Your task to perform on an android device: Clear the cart on walmart.com. Add "razer naga" to the cart on walmart.com, then select checkout. Image 0: 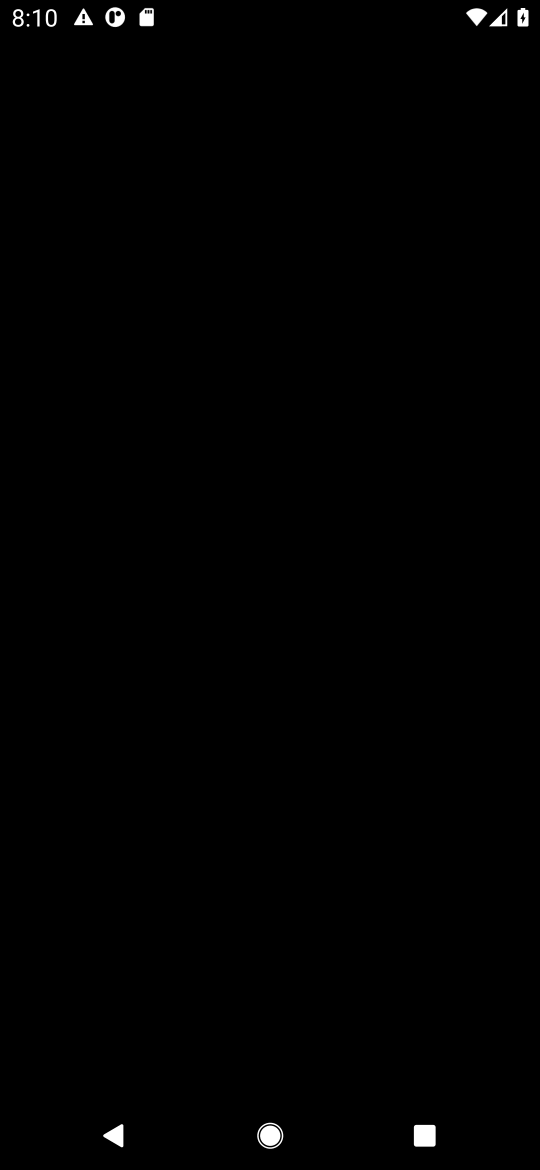
Step 0: press home button
Your task to perform on an android device: Clear the cart on walmart.com. Add "razer naga" to the cart on walmart.com, then select checkout. Image 1: 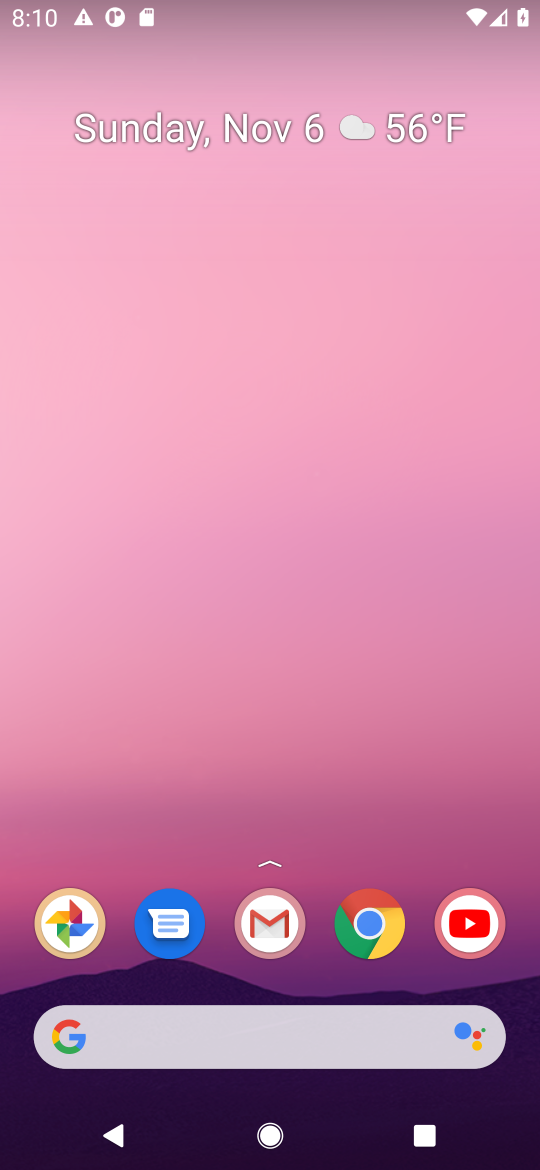
Step 1: click (375, 930)
Your task to perform on an android device: Clear the cart on walmart.com. Add "razer naga" to the cart on walmart.com, then select checkout. Image 2: 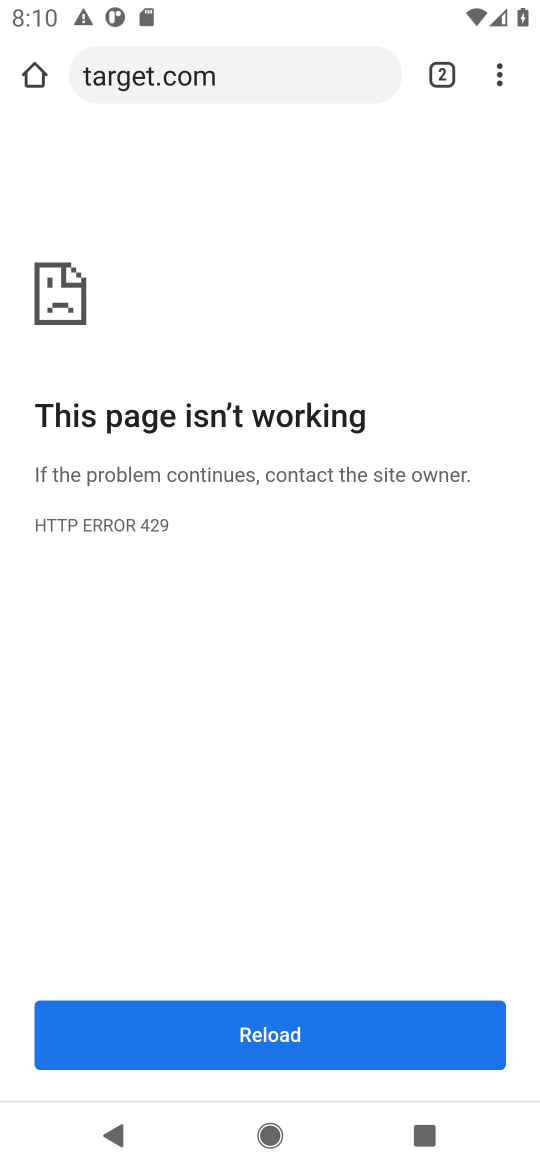
Step 2: click (219, 81)
Your task to perform on an android device: Clear the cart on walmart.com. Add "razer naga" to the cart on walmart.com, then select checkout. Image 3: 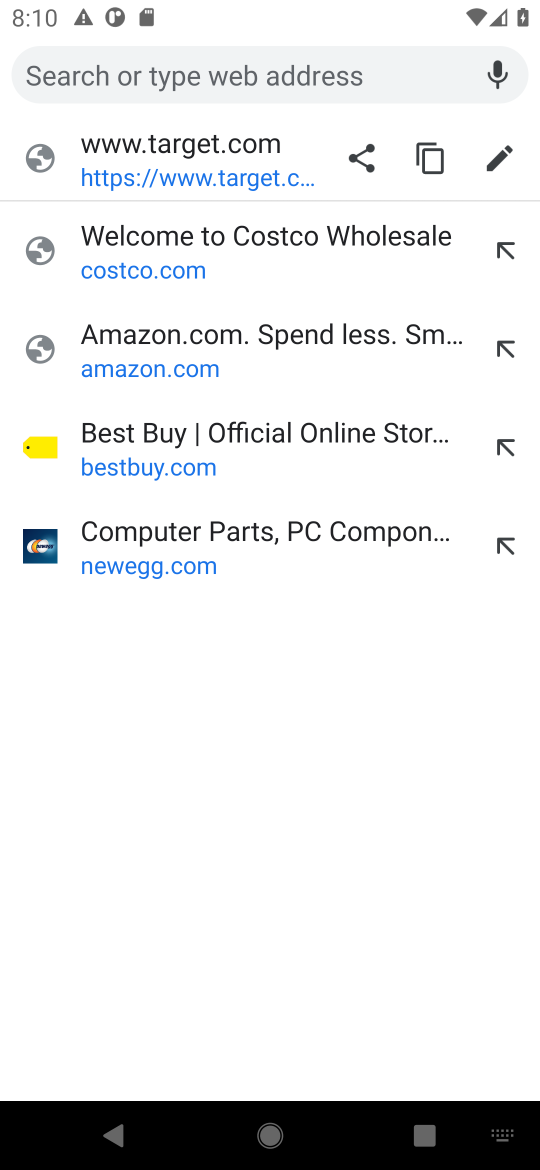
Step 3: type "walmart.com"
Your task to perform on an android device: Clear the cart on walmart.com. Add "razer naga" to the cart on walmart.com, then select checkout. Image 4: 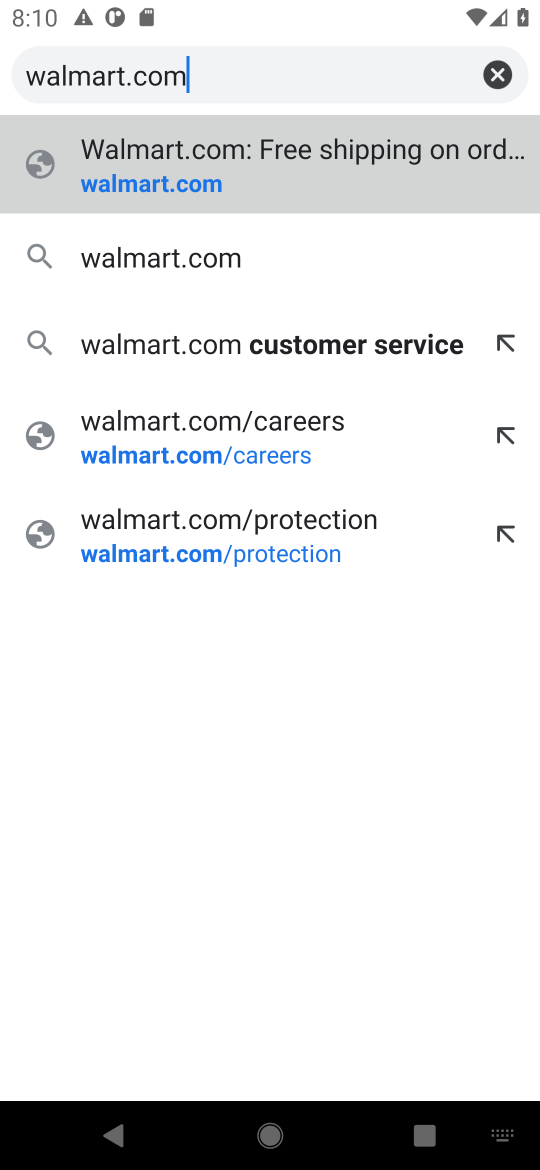
Step 4: click (126, 192)
Your task to perform on an android device: Clear the cart on walmart.com. Add "razer naga" to the cart on walmart.com, then select checkout. Image 5: 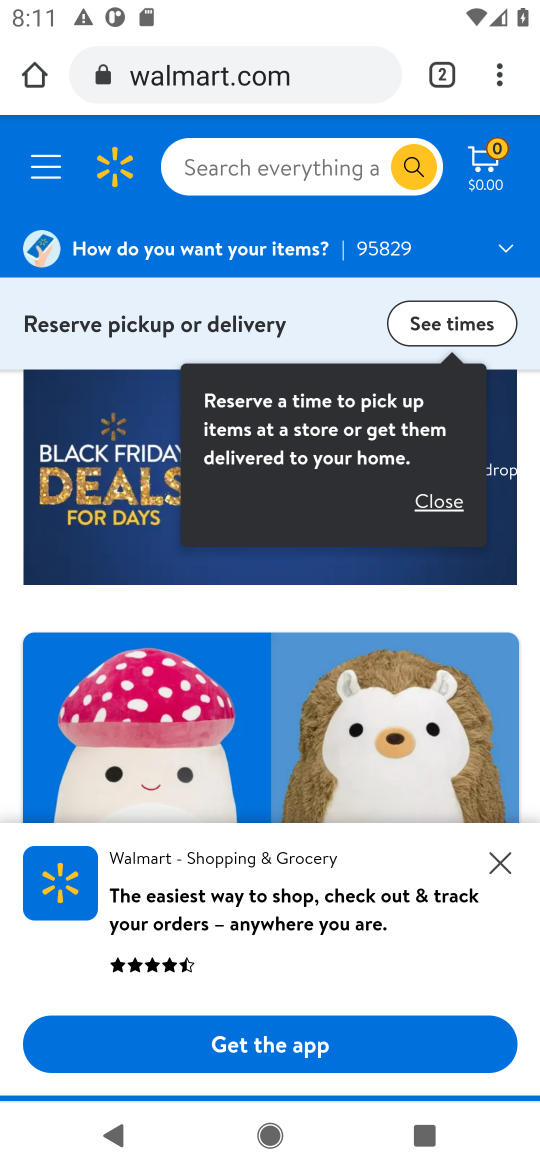
Step 5: click (484, 172)
Your task to perform on an android device: Clear the cart on walmart.com. Add "razer naga" to the cart on walmart.com, then select checkout. Image 6: 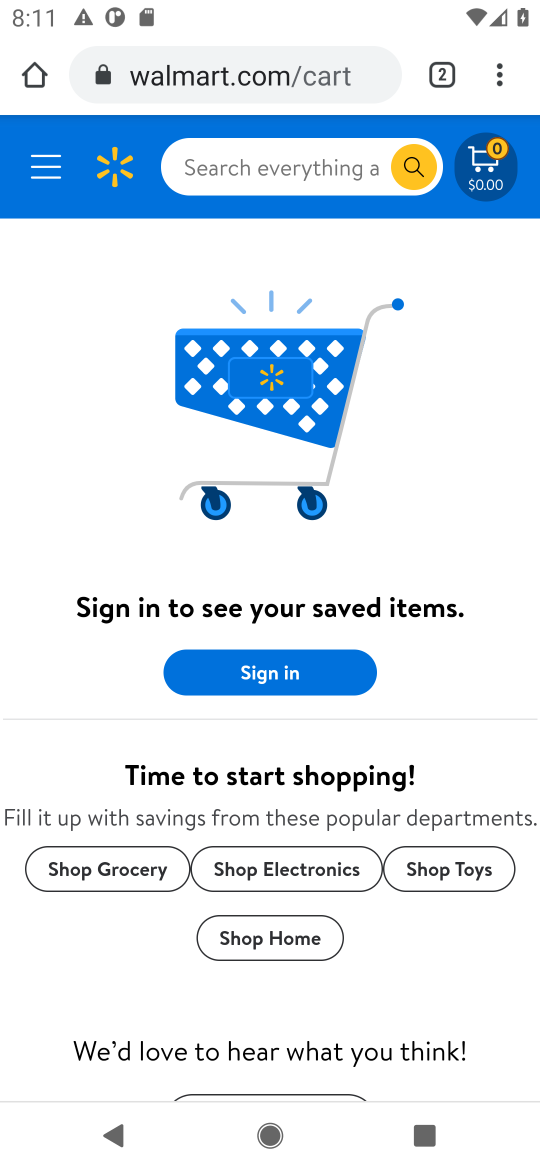
Step 6: click (219, 169)
Your task to perform on an android device: Clear the cart on walmart.com. Add "razer naga" to the cart on walmart.com, then select checkout. Image 7: 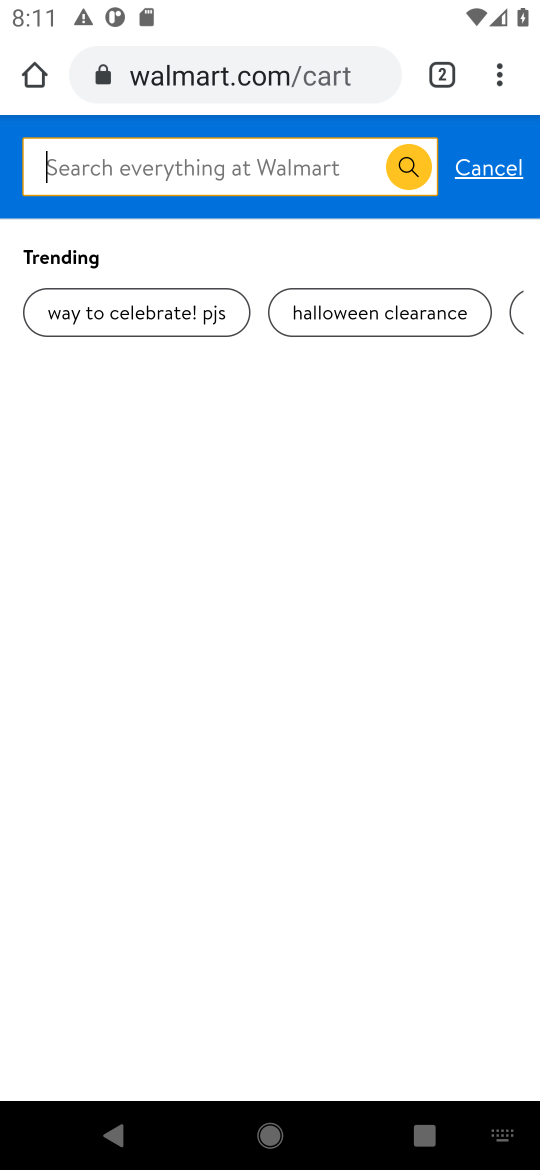
Step 7: type "razer naga"
Your task to perform on an android device: Clear the cart on walmart.com. Add "razer naga" to the cart on walmart.com, then select checkout. Image 8: 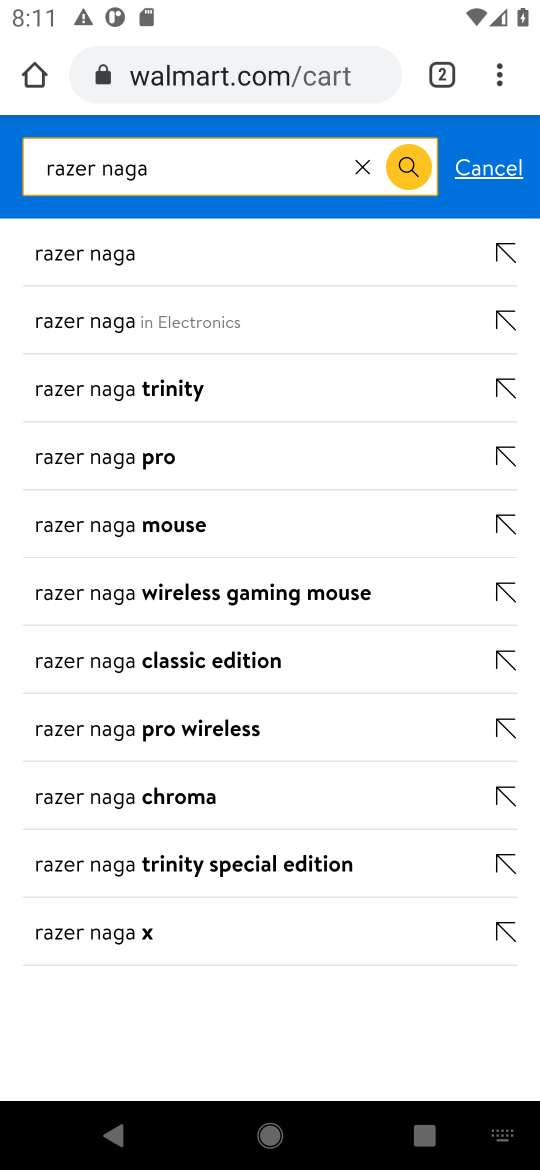
Step 8: click (95, 258)
Your task to perform on an android device: Clear the cart on walmart.com. Add "razer naga" to the cart on walmart.com, then select checkout. Image 9: 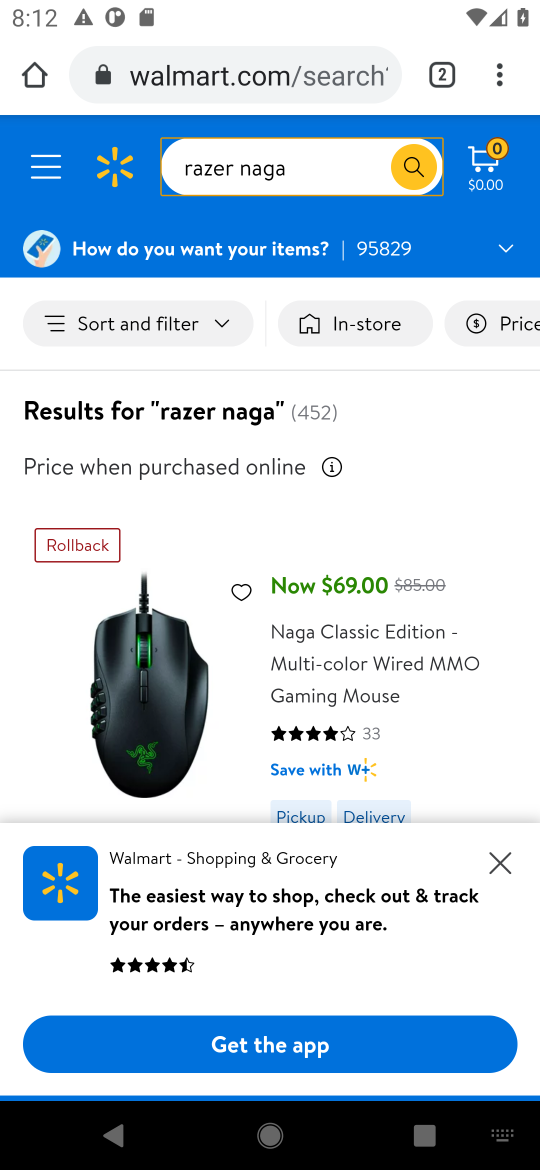
Step 9: click (508, 873)
Your task to perform on an android device: Clear the cart on walmart.com. Add "razer naga" to the cart on walmart.com, then select checkout. Image 10: 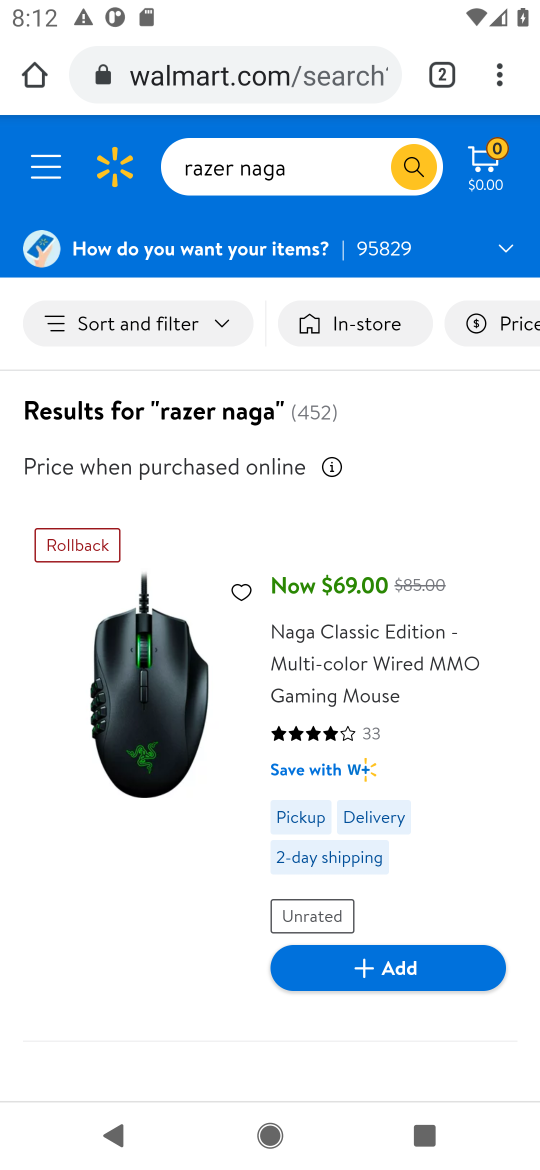
Step 10: click (393, 968)
Your task to perform on an android device: Clear the cart on walmart.com. Add "razer naga" to the cart on walmart.com, then select checkout. Image 11: 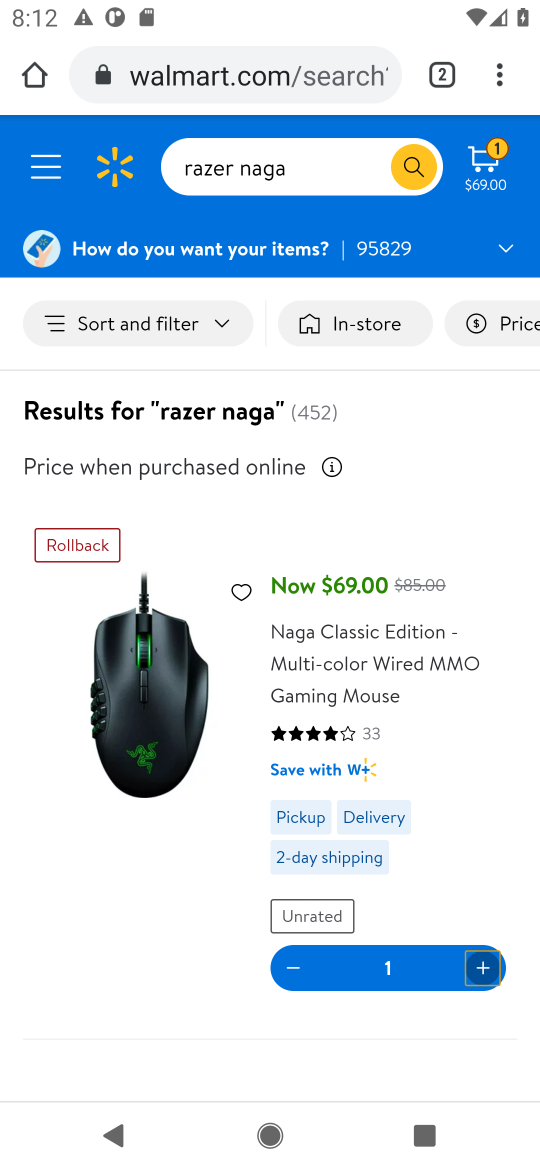
Step 11: click (484, 164)
Your task to perform on an android device: Clear the cart on walmart.com. Add "razer naga" to the cart on walmart.com, then select checkout. Image 12: 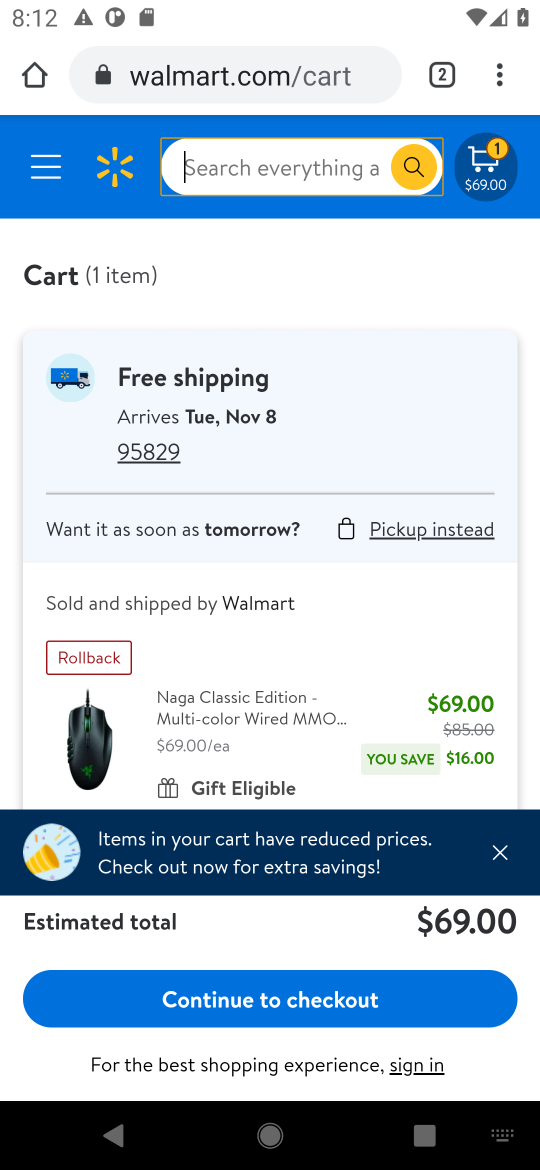
Step 12: click (263, 1011)
Your task to perform on an android device: Clear the cart on walmart.com. Add "razer naga" to the cart on walmart.com, then select checkout. Image 13: 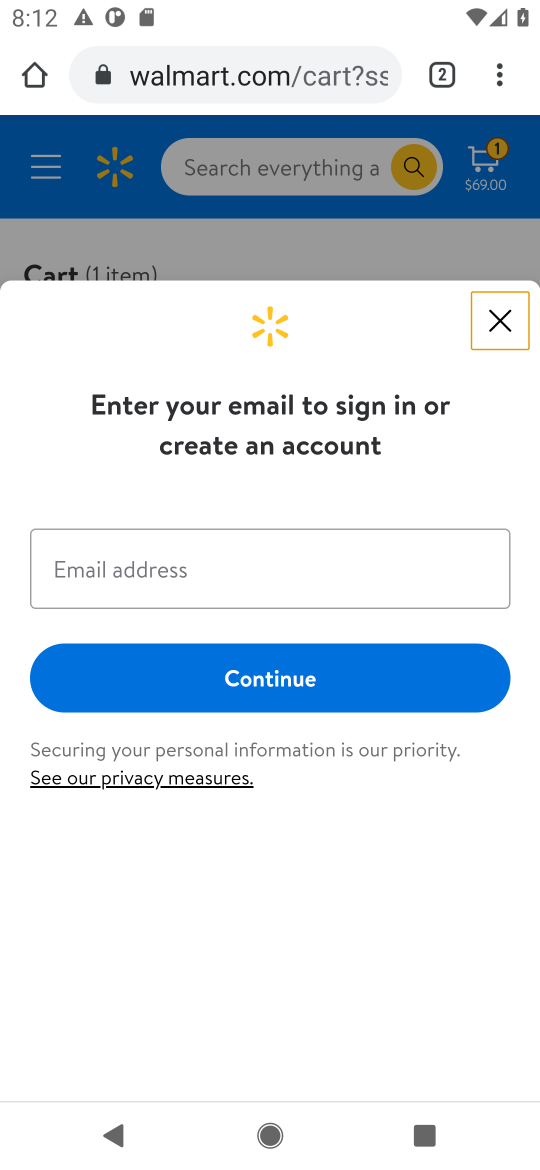
Step 13: task complete